Your task to perform on an android device: Open eBay Image 0: 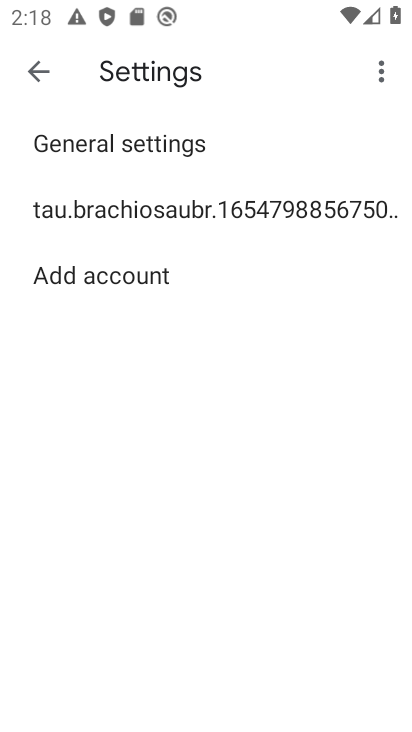
Step 0: press back button
Your task to perform on an android device: Open eBay Image 1: 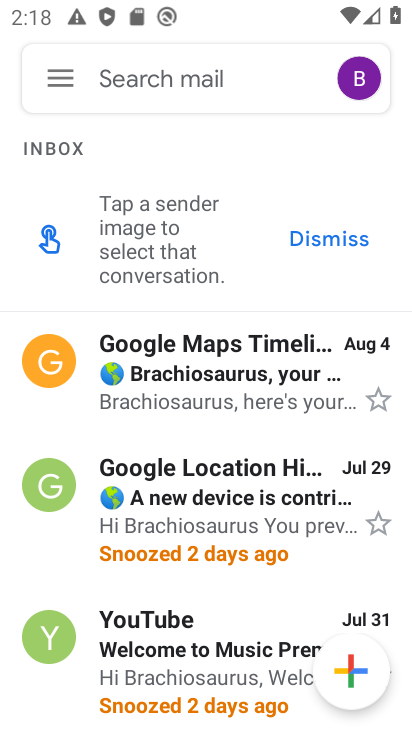
Step 1: press home button
Your task to perform on an android device: Open eBay Image 2: 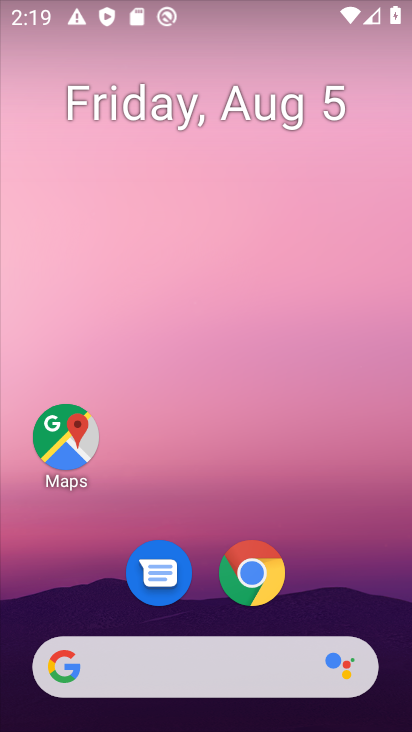
Step 2: click (241, 572)
Your task to perform on an android device: Open eBay Image 3: 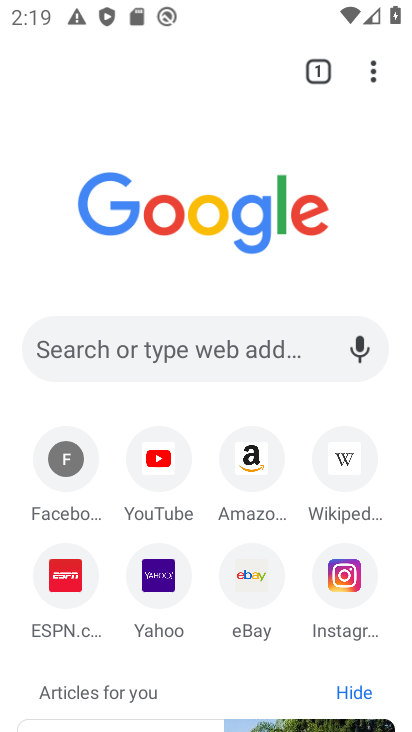
Step 3: click (253, 575)
Your task to perform on an android device: Open eBay Image 4: 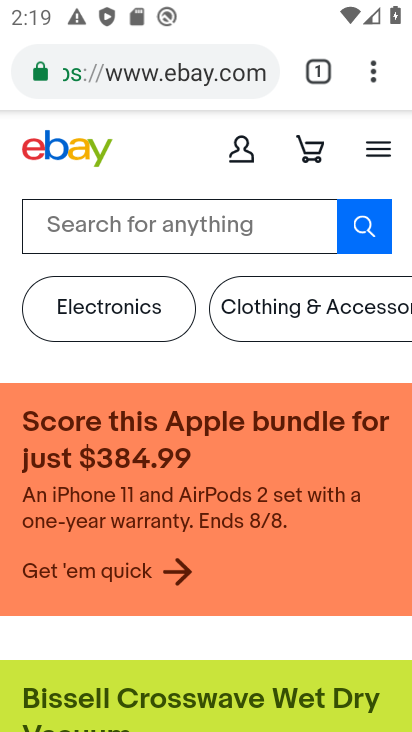
Step 4: task complete